Your task to perform on an android device: turn off notifications in google photos Image 0: 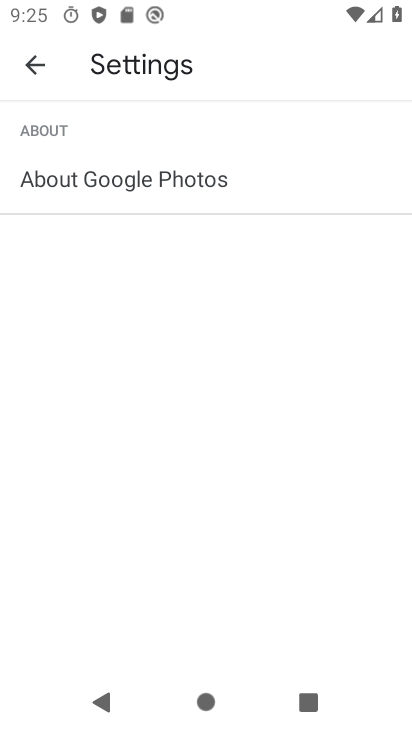
Step 0: press home button
Your task to perform on an android device: turn off notifications in google photos Image 1: 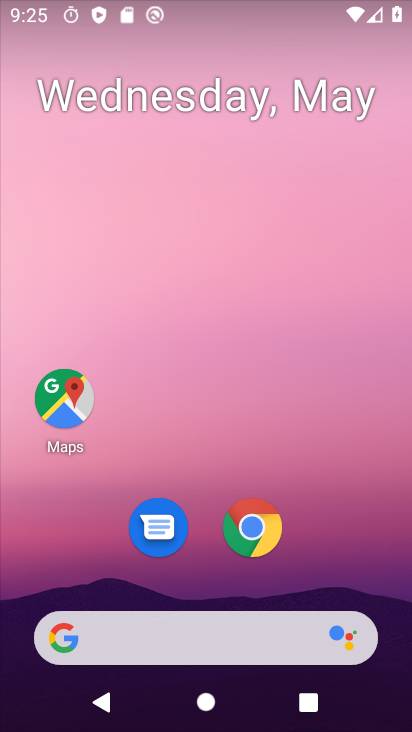
Step 1: drag from (292, 475) to (321, 65)
Your task to perform on an android device: turn off notifications in google photos Image 2: 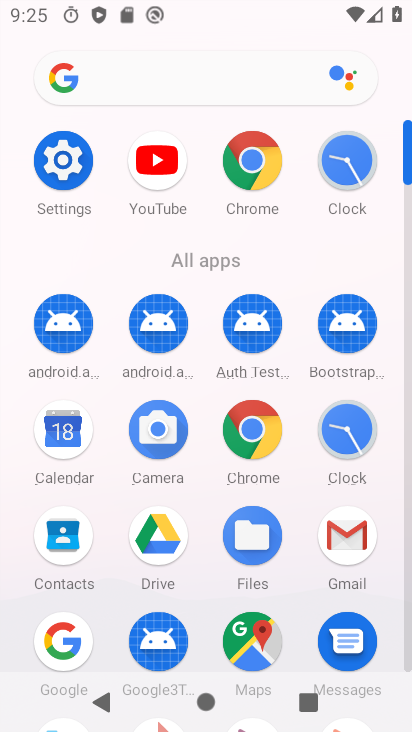
Step 2: drag from (279, 263) to (303, 15)
Your task to perform on an android device: turn off notifications in google photos Image 3: 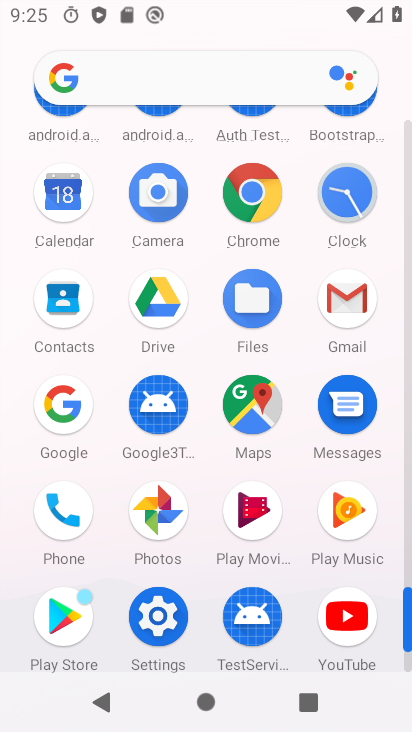
Step 3: click (162, 502)
Your task to perform on an android device: turn off notifications in google photos Image 4: 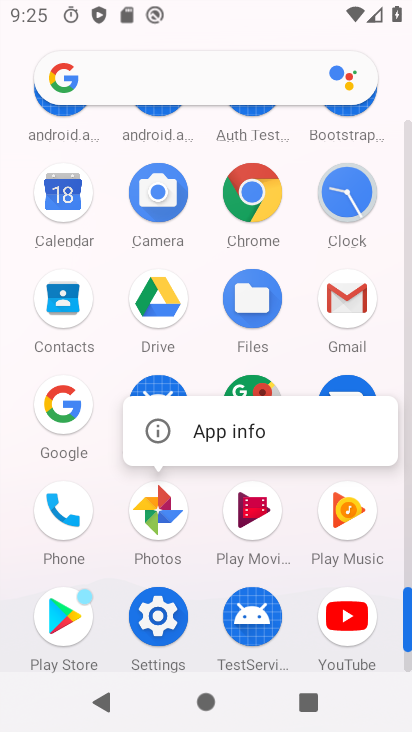
Step 4: click (189, 421)
Your task to perform on an android device: turn off notifications in google photos Image 5: 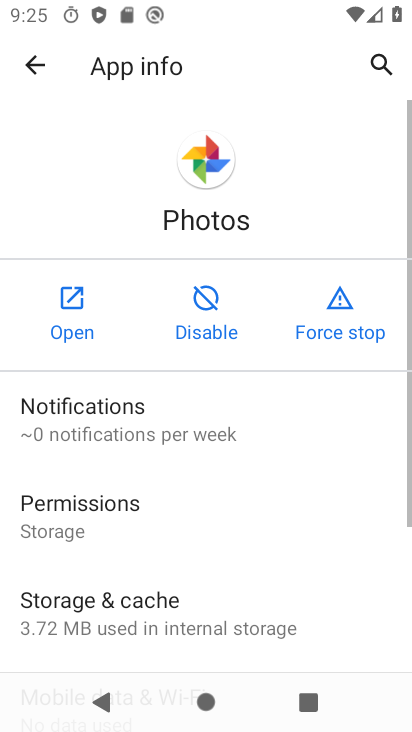
Step 5: click (76, 409)
Your task to perform on an android device: turn off notifications in google photos Image 6: 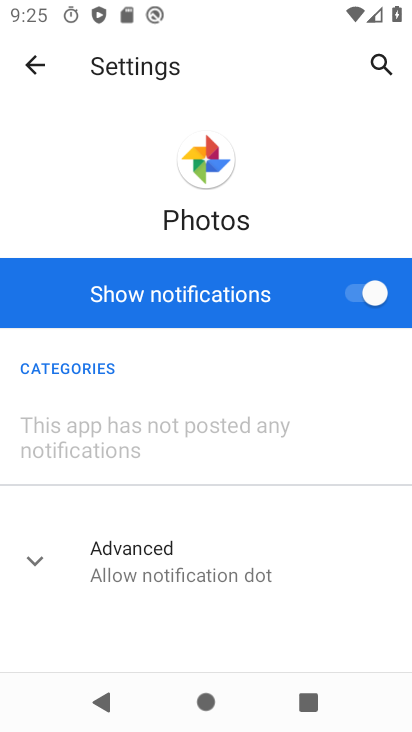
Step 6: click (357, 294)
Your task to perform on an android device: turn off notifications in google photos Image 7: 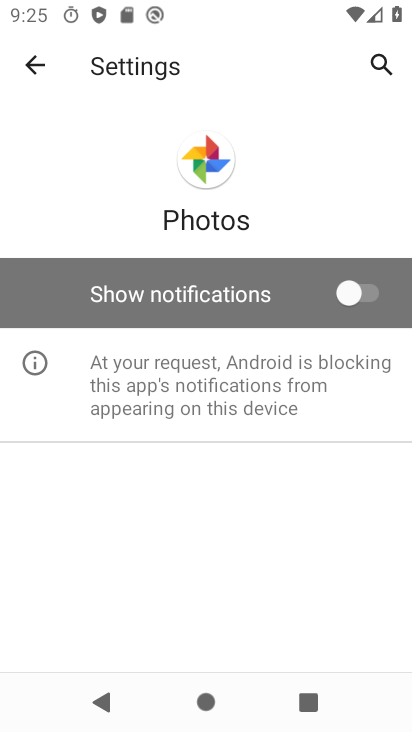
Step 7: task complete